Your task to perform on an android device: When is my next appointment? Image 0: 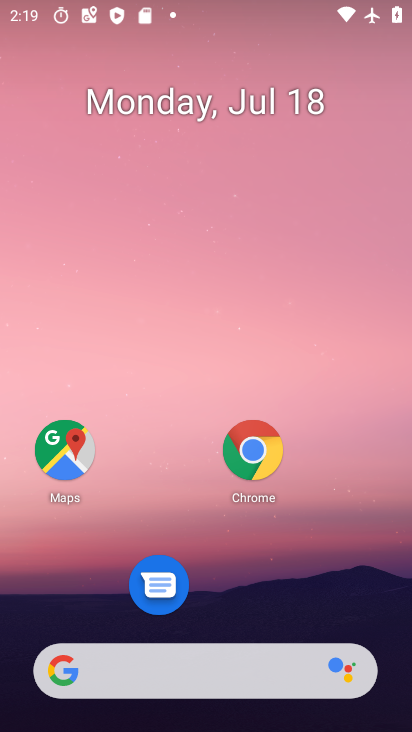
Step 0: press home button
Your task to perform on an android device: When is my next appointment? Image 1: 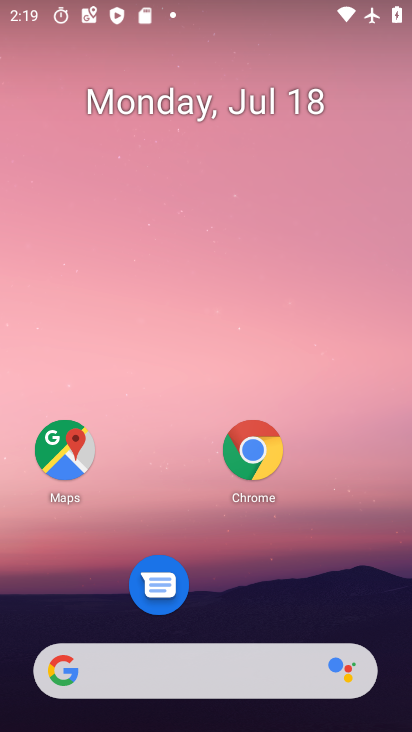
Step 1: drag from (207, 666) to (330, 139)
Your task to perform on an android device: When is my next appointment? Image 2: 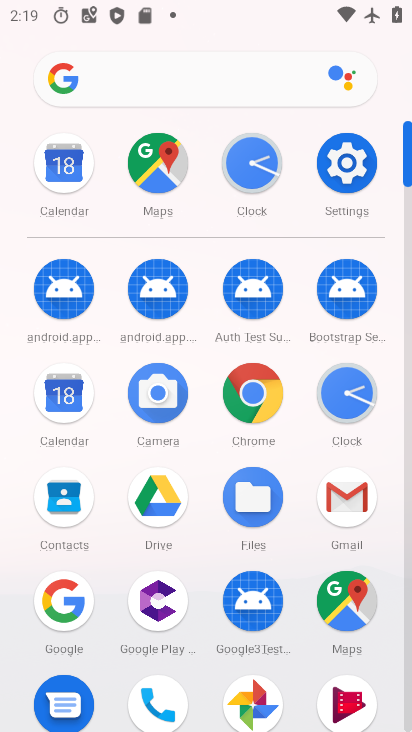
Step 2: click (66, 407)
Your task to perform on an android device: When is my next appointment? Image 3: 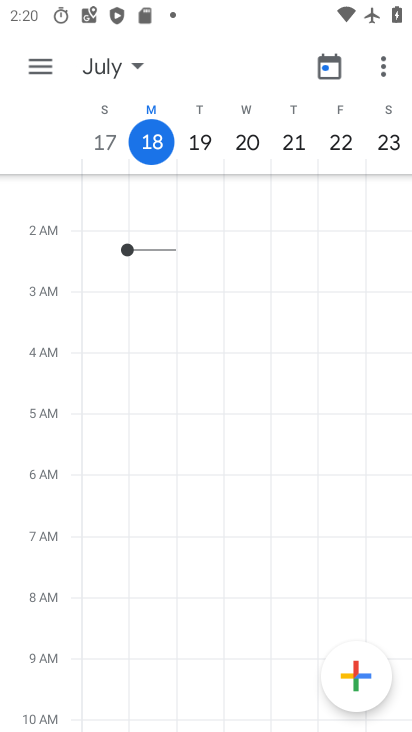
Step 3: click (33, 59)
Your task to perform on an android device: When is my next appointment? Image 4: 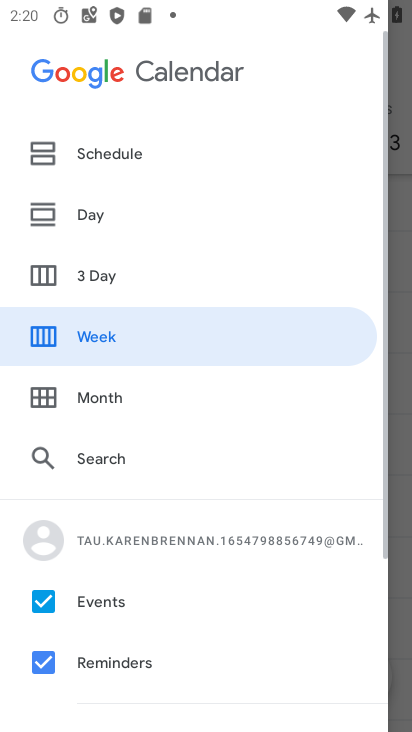
Step 4: click (108, 155)
Your task to perform on an android device: When is my next appointment? Image 5: 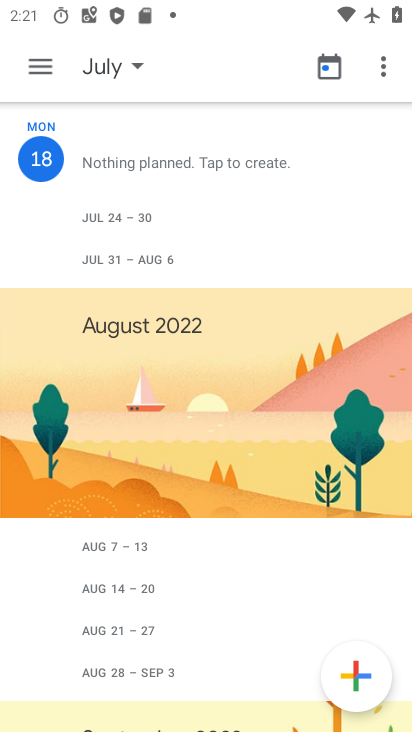
Step 5: task complete